Your task to perform on an android device: clear all cookies in the chrome app Image 0: 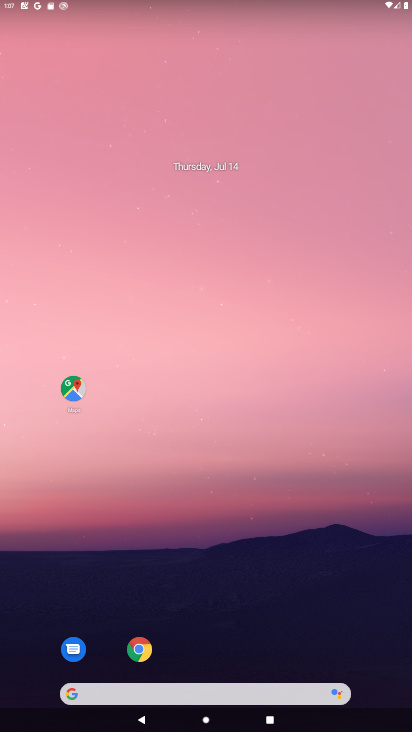
Step 0: drag from (311, 704) to (289, 186)
Your task to perform on an android device: clear all cookies in the chrome app Image 1: 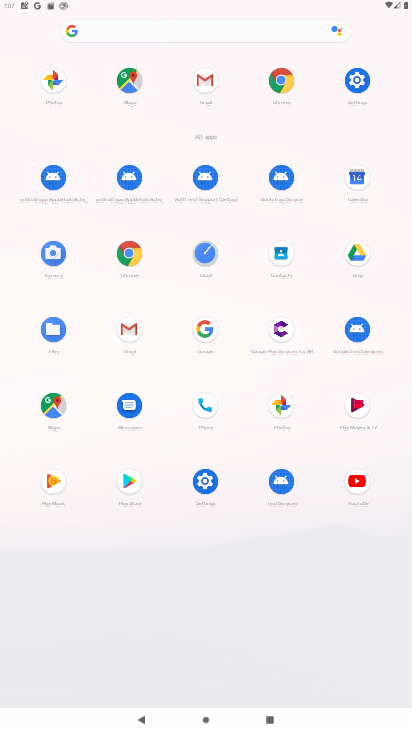
Step 1: click (134, 253)
Your task to perform on an android device: clear all cookies in the chrome app Image 2: 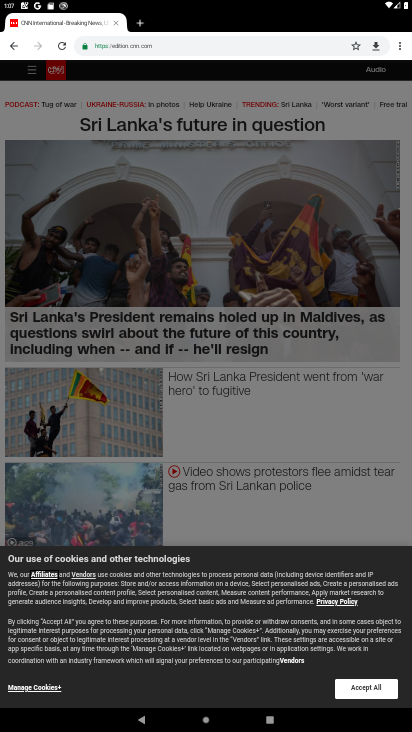
Step 2: click (401, 44)
Your task to perform on an android device: clear all cookies in the chrome app Image 3: 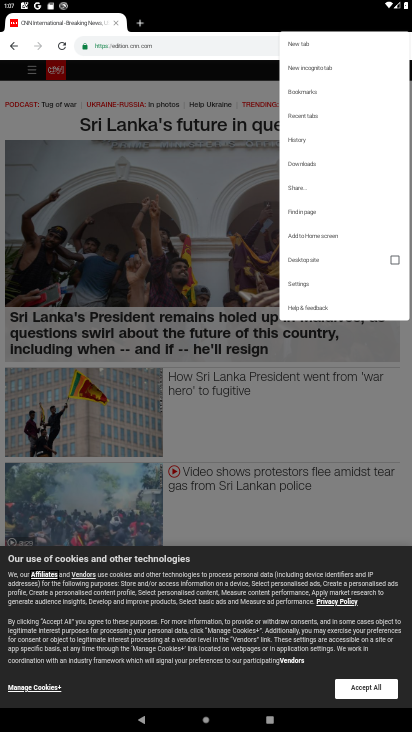
Step 3: click (326, 284)
Your task to perform on an android device: clear all cookies in the chrome app Image 4: 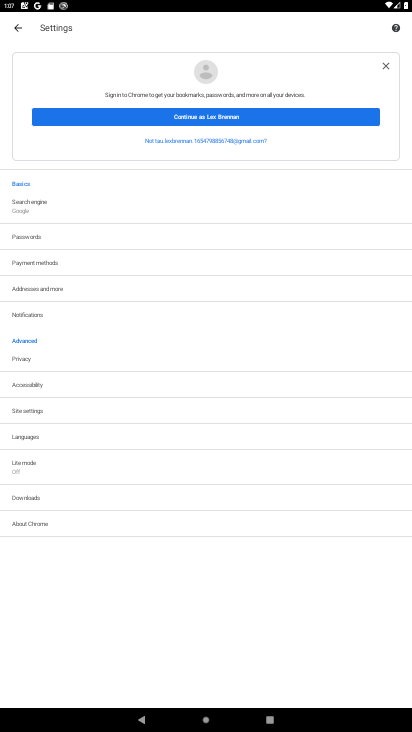
Step 4: click (27, 365)
Your task to perform on an android device: clear all cookies in the chrome app Image 5: 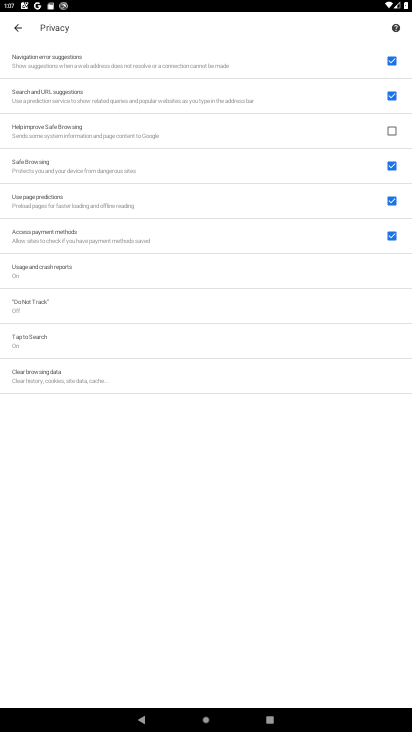
Step 5: click (147, 381)
Your task to perform on an android device: clear all cookies in the chrome app Image 6: 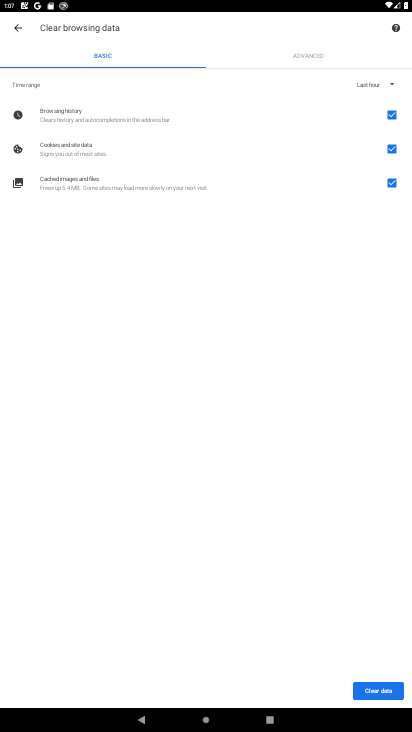
Step 6: click (386, 693)
Your task to perform on an android device: clear all cookies in the chrome app Image 7: 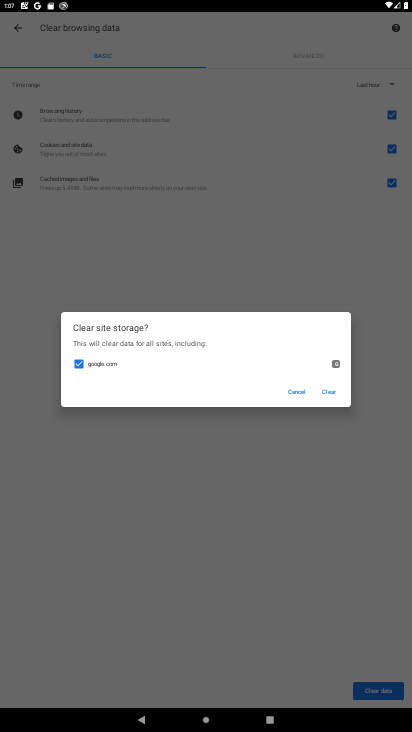
Step 7: click (336, 390)
Your task to perform on an android device: clear all cookies in the chrome app Image 8: 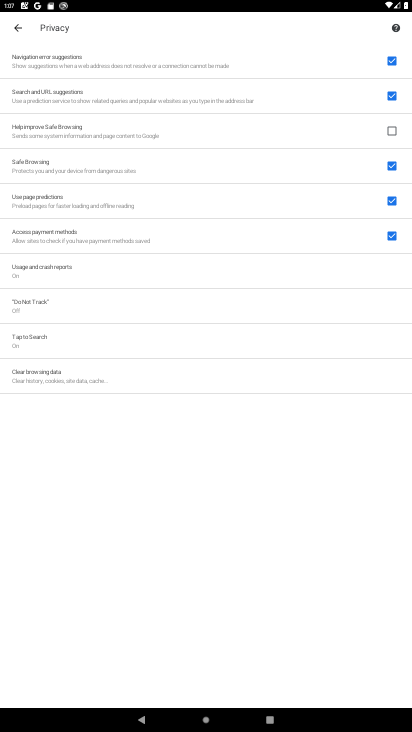
Step 8: task complete